Your task to perform on an android device: choose inbox layout in the gmail app Image 0: 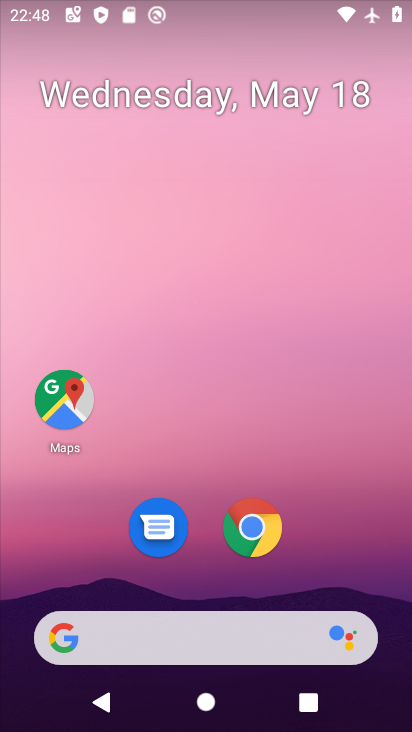
Step 0: drag from (383, 571) to (167, 56)
Your task to perform on an android device: choose inbox layout in the gmail app Image 1: 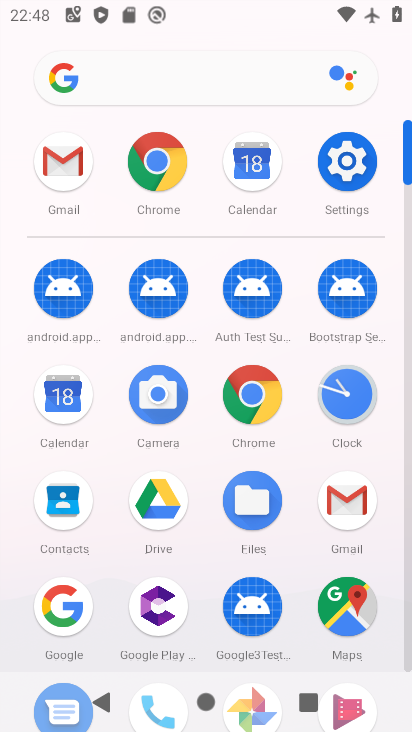
Step 1: click (342, 536)
Your task to perform on an android device: choose inbox layout in the gmail app Image 2: 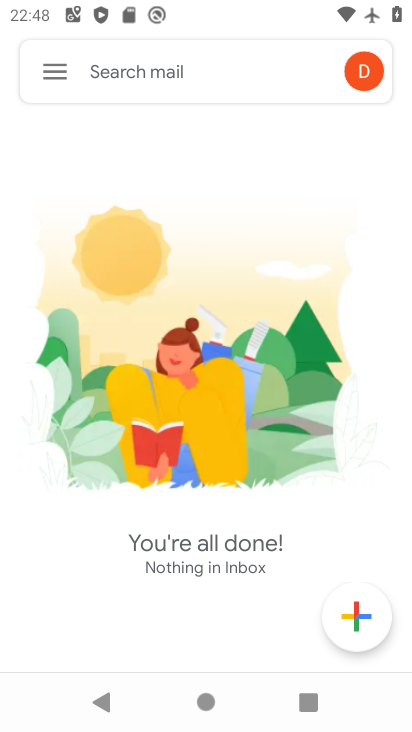
Step 2: click (49, 71)
Your task to perform on an android device: choose inbox layout in the gmail app Image 3: 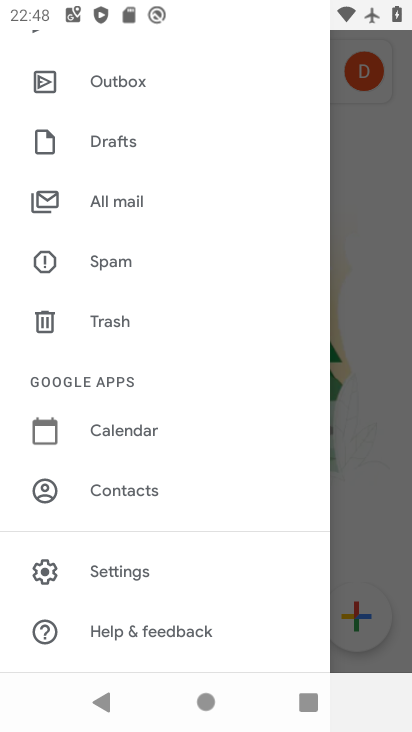
Step 3: drag from (48, 131) to (46, 503)
Your task to perform on an android device: choose inbox layout in the gmail app Image 4: 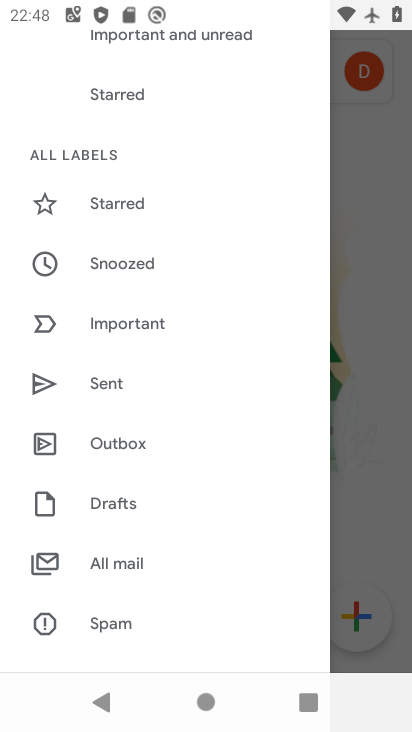
Step 4: drag from (122, 77) to (126, 304)
Your task to perform on an android device: choose inbox layout in the gmail app Image 5: 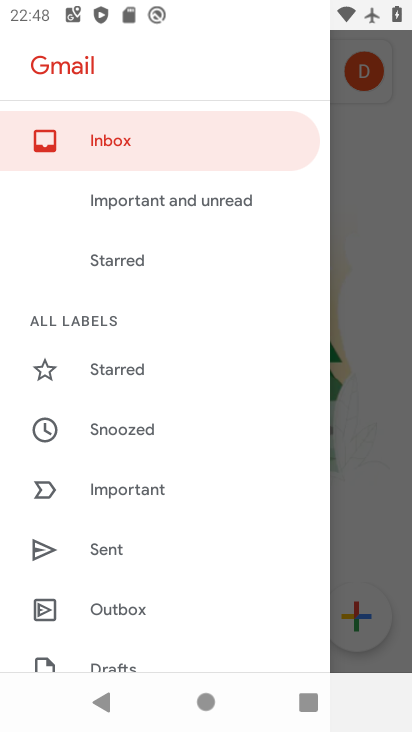
Step 5: click (130, 151)
Your task to perform on an android device: choose inbox layout in the gmail app Image 6: 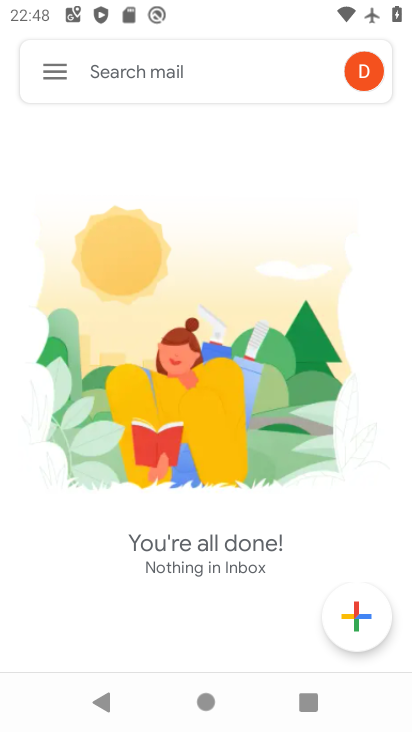
Step 6: task complete